Your task to perform on an android device: toggle wifi Image 0: 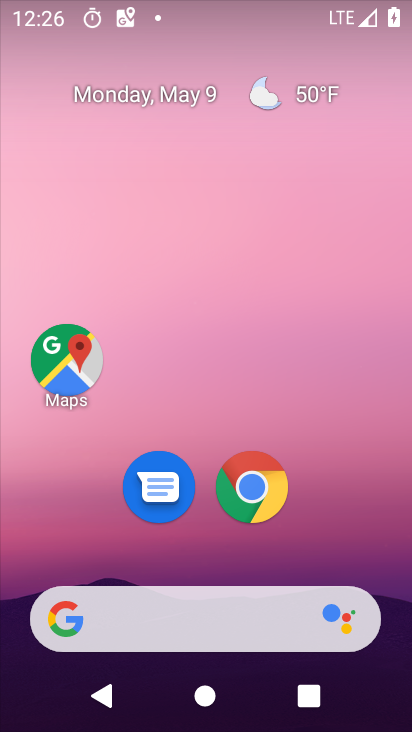
Step 0: drag from (301, 488) to (303, 104)
Your task to perform on an android device: toggle wifi Image 1: 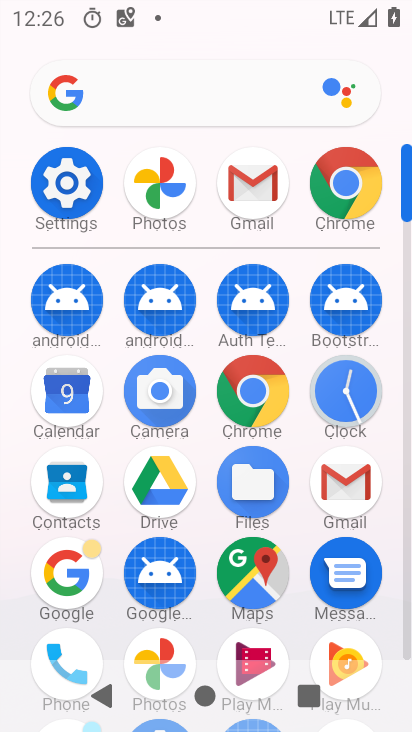
Step 1: click (80, 203)
Your task to perform on an android device: toggle wifi Image 2: 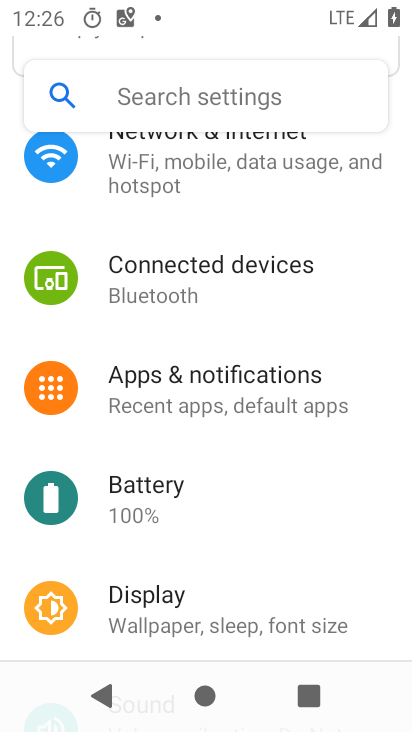
Step 2: click (253, 167)
Your task to perform on an android device: toggle wifi Image 3: 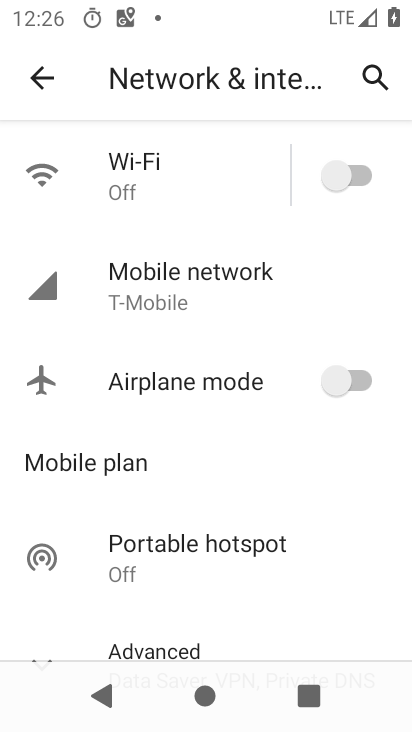
Step 3: click (364, 169)
Your task to perform on an android device: toggle wifi Image 4: 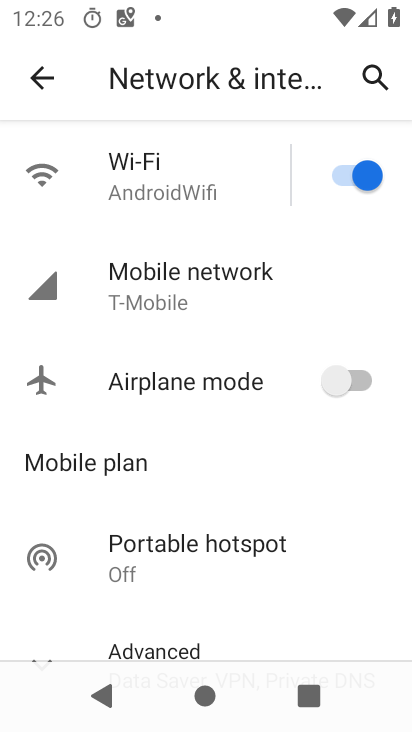
Step 4: task complete